Your task to perform on an android device: Open internet settings Image 0: 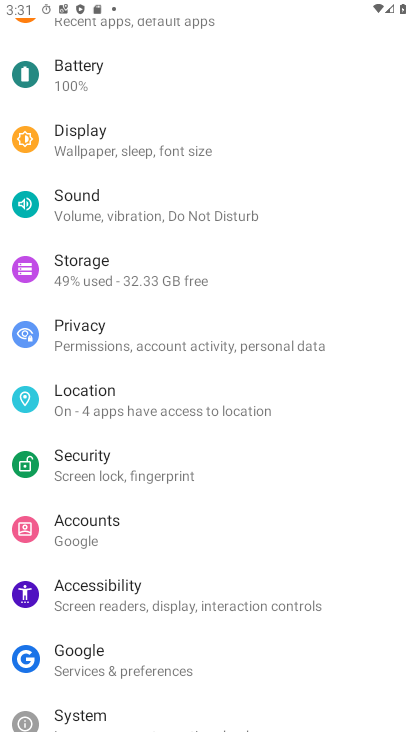
Step 0: press home button
Your task to perform on an android device: Open internet settings Image 1: 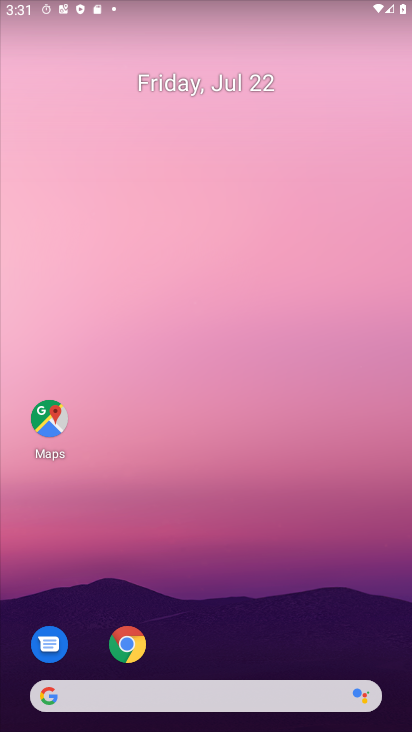
Step 1: drag from (226, 637) to (216, 250)
Your task to perform on an android device: Open internet settings Image 2: 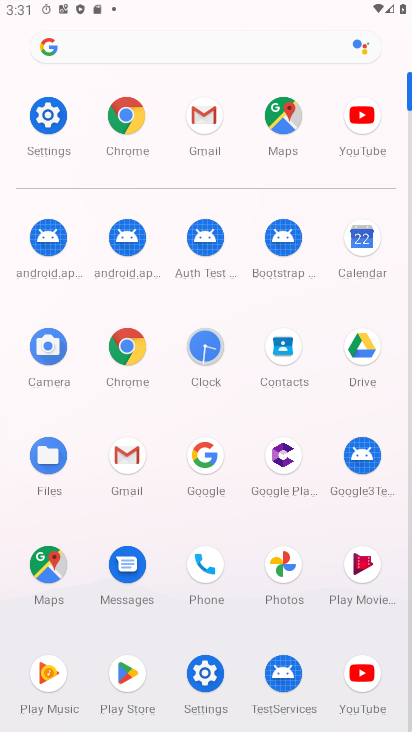
Step 2: click (45, 117)
Your task to perform on an android device: Open internet settings Image 3: 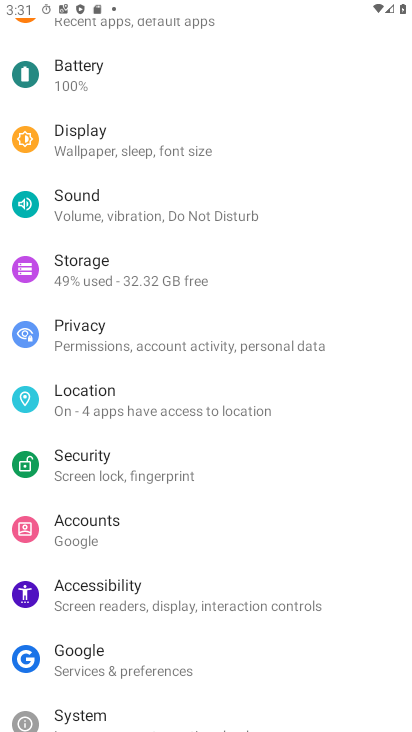
Step 3: drag from (224, 105) to (196, 611)
Your task to perform on an android device: Open internet settings Image 4: 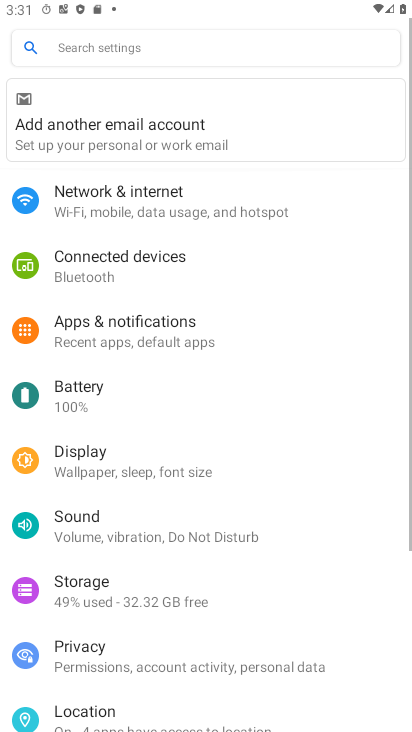
Step 4: drag from (225, 63) to (214, 422)
Your task to perform on an android device: Open internet settings Image 5: 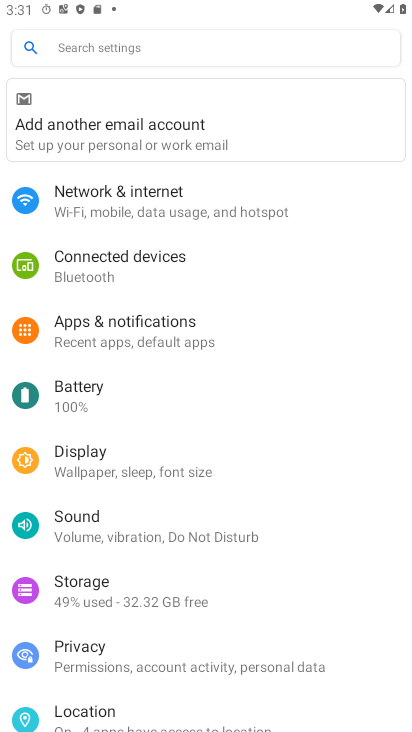
Step 5: click (149, 203)
Your task to perform on an android device: Open internet settings Image 6: 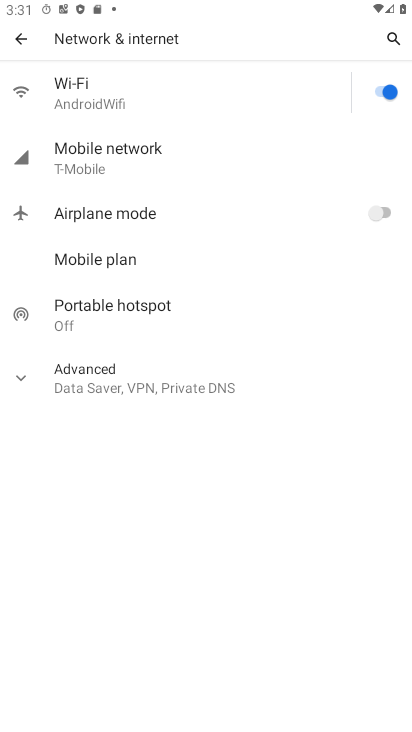
Step 6: task complete